Your task to perform on an android device: read, delete, or share a saved page in the chrome app Image 0: 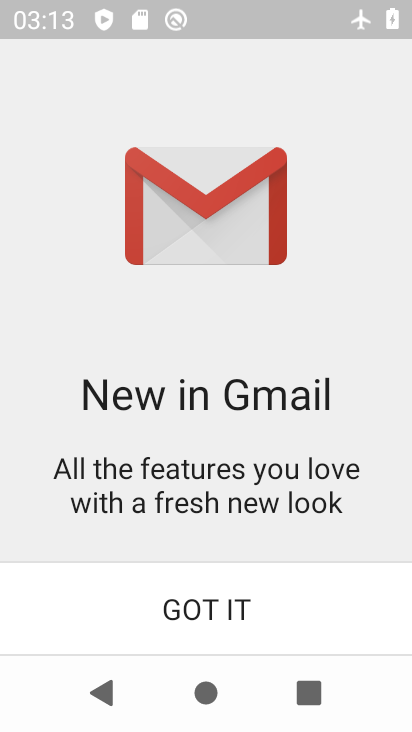
Step 0: press home button
Your task to perform on an android device: read, delete, or share a saved page in the chrome app Image 1: 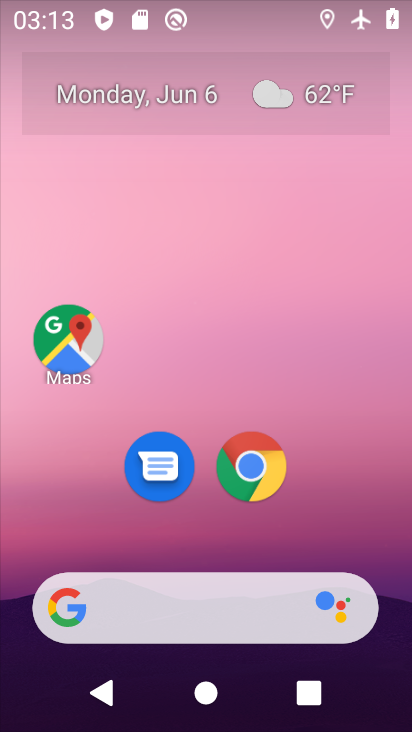
Step 1: click (263, 467)
Your task to perform on an android device: read, delete, or share a saved page in the chrome app Image 2: 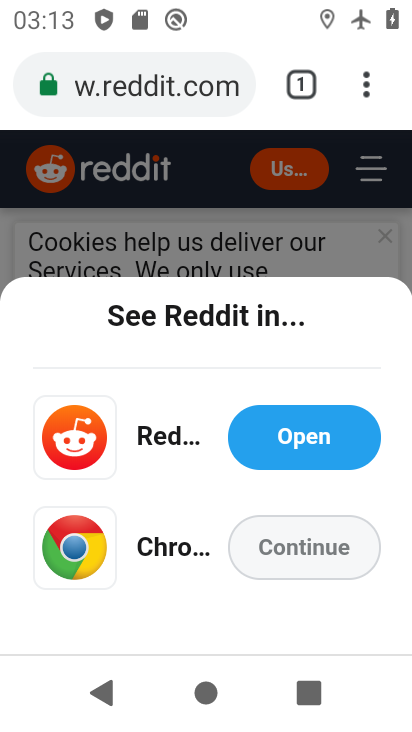
Step 2: task complete